Your task to perform on an android device: Open Amazon Image 0: 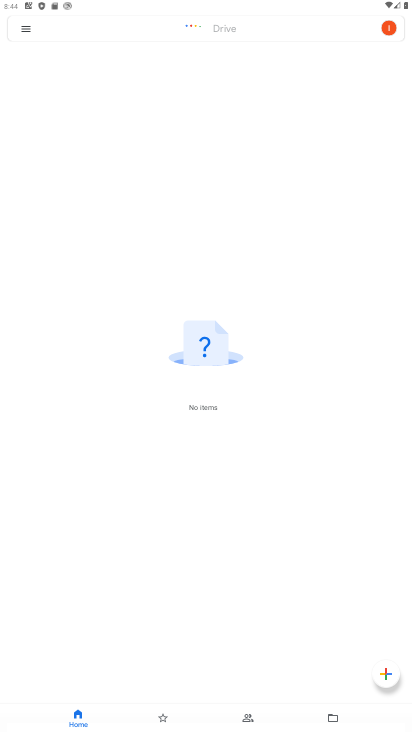
Step 0: press home button
Your task to perform on an android device: Open Amazon Image 1: 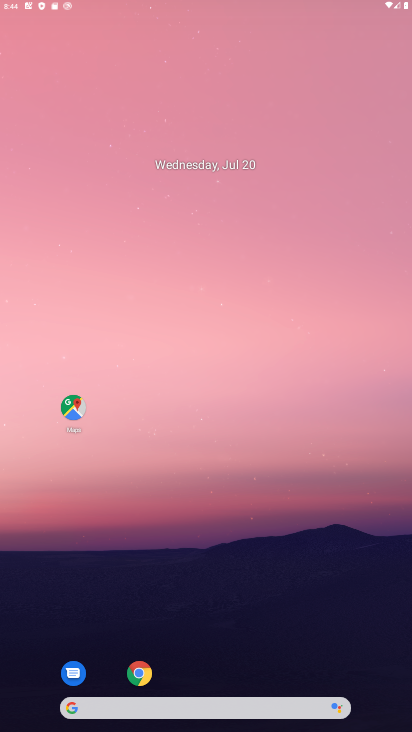
Step 1: drag from (196, 642) to (238, 22)
Your task to perform on an android device: Open Amazon Image 2: 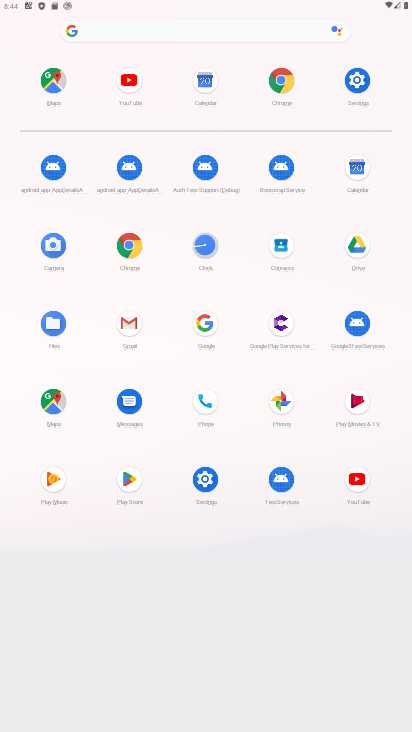
Step 2: click (278, 75)
Your task to perform on an android device: Open Amazon Image 3: 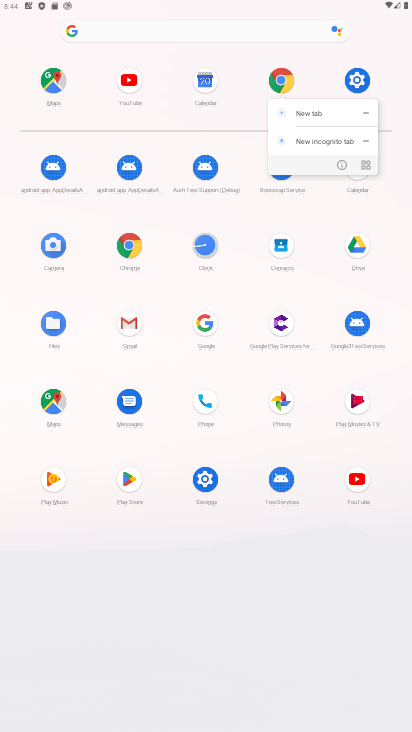
Step 3: click (337, 163)
Your task to perform on an android device: Open Amazon Image 4: 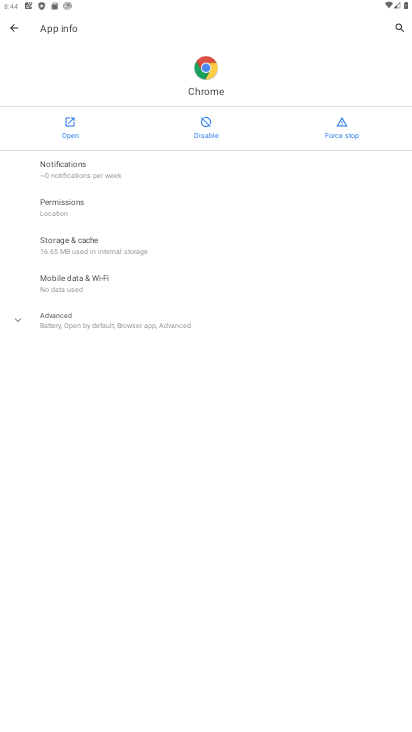
Step 4: click (58, 132)
Your task to perform on an android device: Open Amazon Image 5: 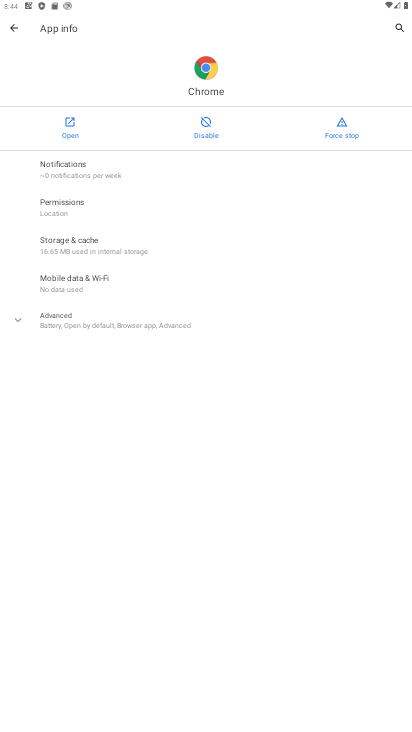
Step 5: click (58, 132)
Your task to perform on an android device: Open Amazon Image 6: 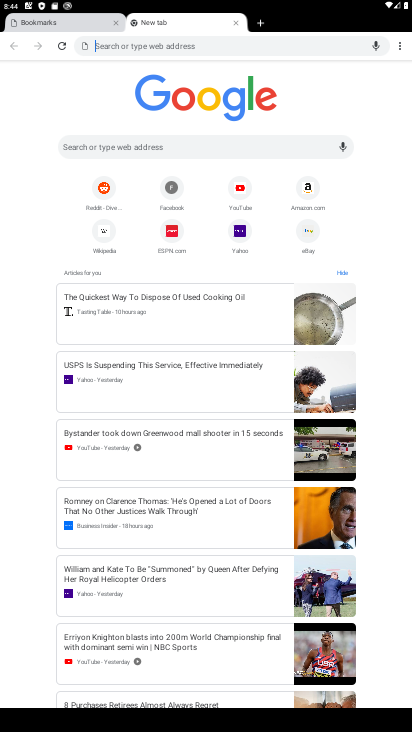
Step 6: click (310, 184)
Your task to perform on an android device: Open Amazon Image 7: 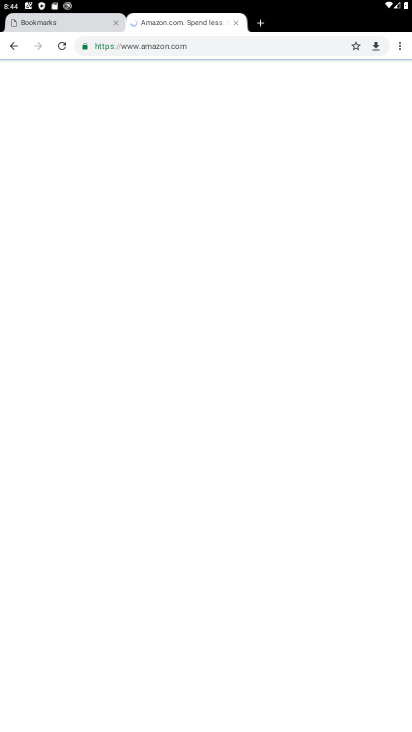
Step 7: task complete